Your task to perform on an android device: change your default location settings in chrome Image 0: 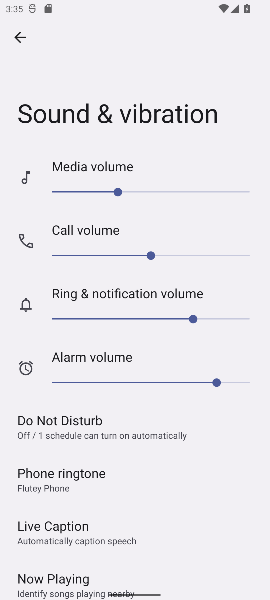
Step 0: press home button
Your task to perform on an android device: change your default location settings in chrome Image 1: 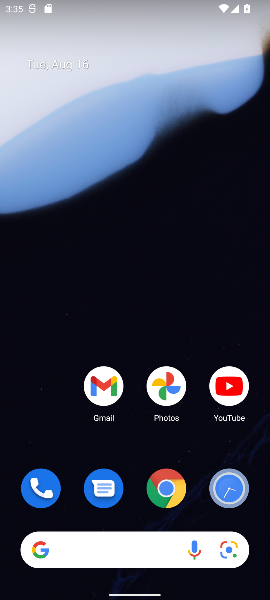
Step 1: task complete